Your task to perform on an android device: Open network settings Image 0: 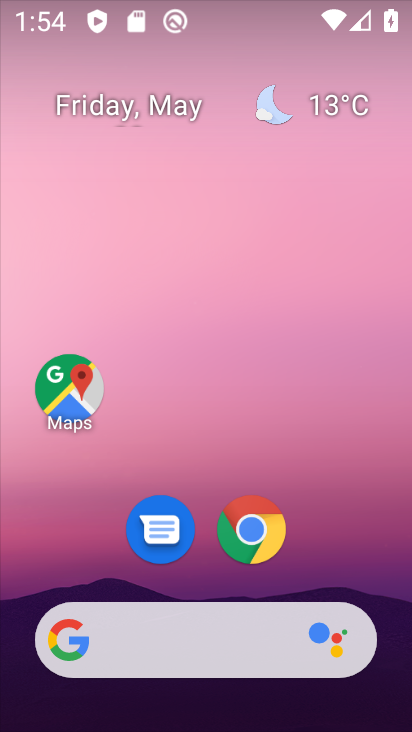
Step 0: drag from (345, 475) to (284, 3)
Your task to perform on an android device: Open network settings Image 1: 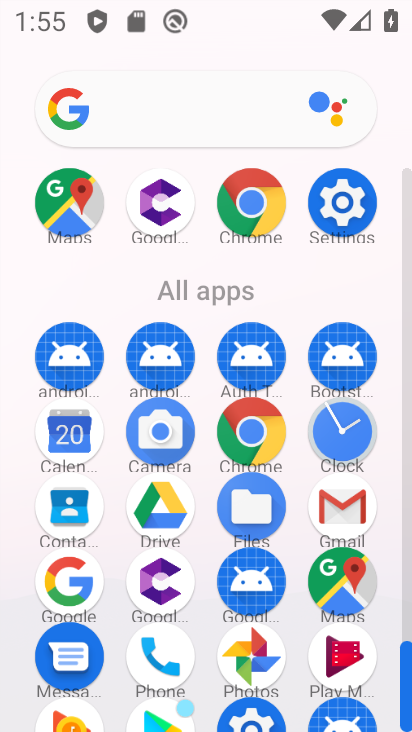
Step 1: click (350, 216)
Your task to perform on an android device: Open network settings Image 2: 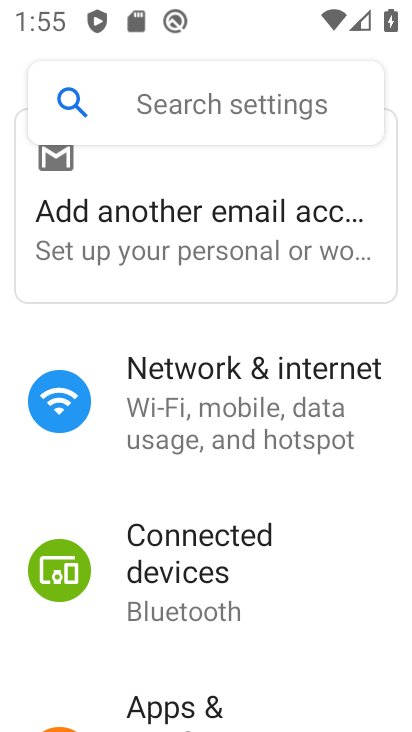
Step 2: drag from (297, 673) to (269, 252)
Your task to perform on an android device: Open network settings Image 3: 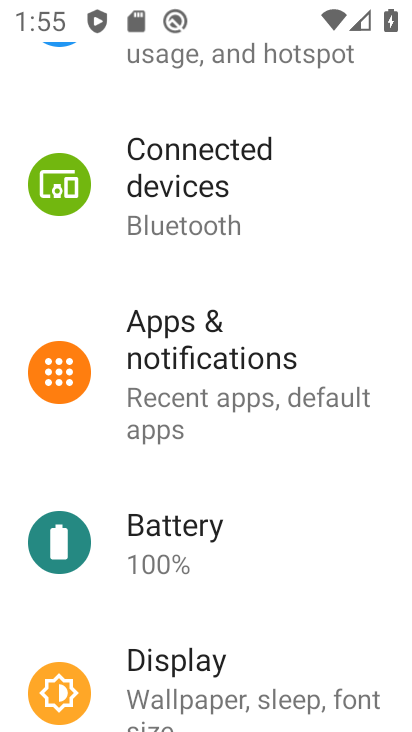
Step 3: drag from (265, 568) to (248, 263)
Your task to perform on an android device: Open network settings Image 4: 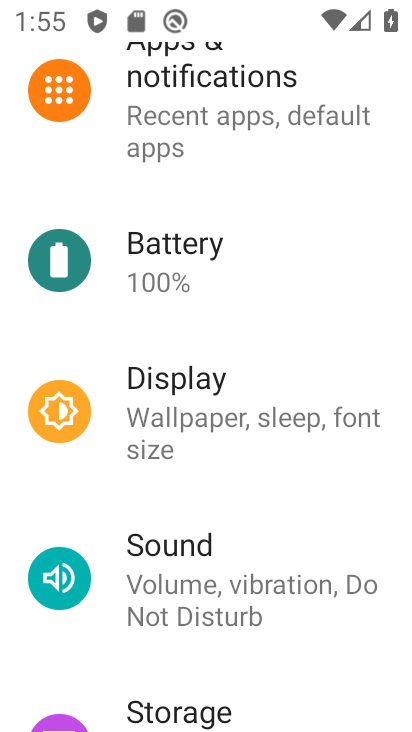
Step 4: drag from (240, 115) to (292, 576)
Your task to perform on an android device: Open network settings Image 5: 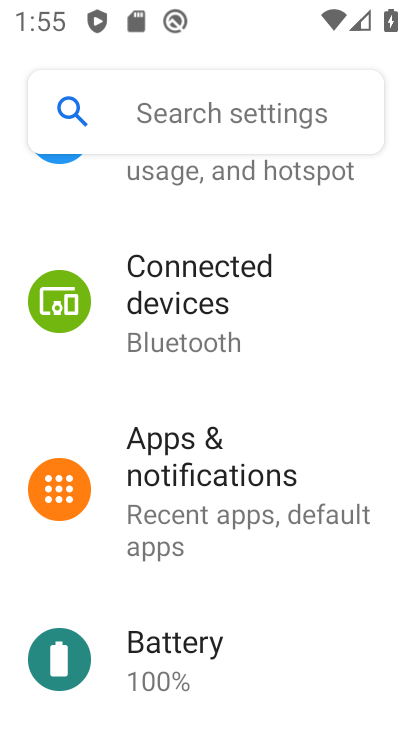
Step 5: drag from (230, 250) to (288, 577)
Your task to perform on an android device: Open network settings Image 6: 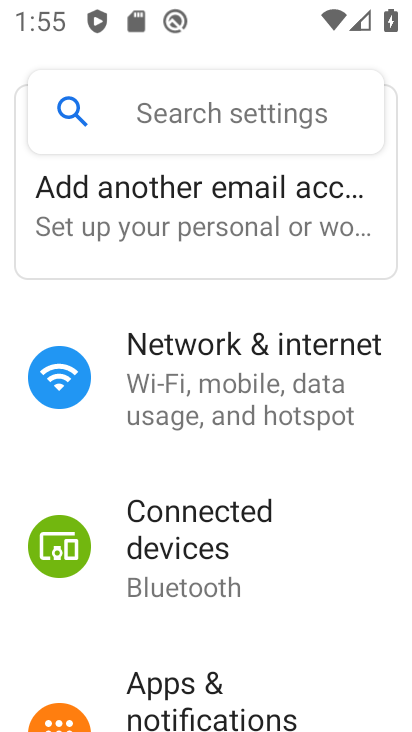
Step 6: click (244, 393)
Your task to perform on an android device: Open network settings Image 7: 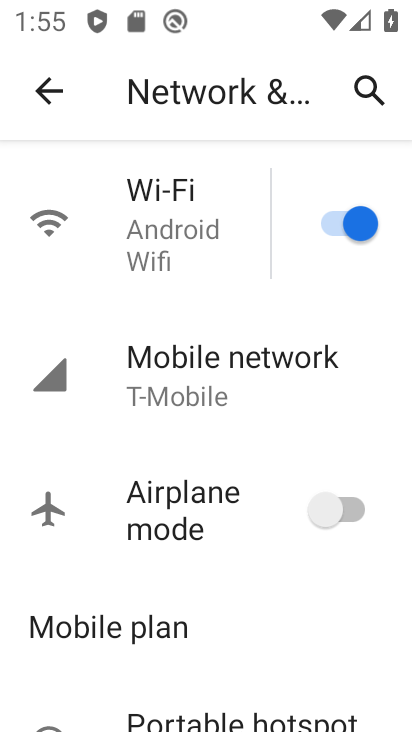
Step 7: task complete